Your task to perform on an android device: Open eBay Image 0: 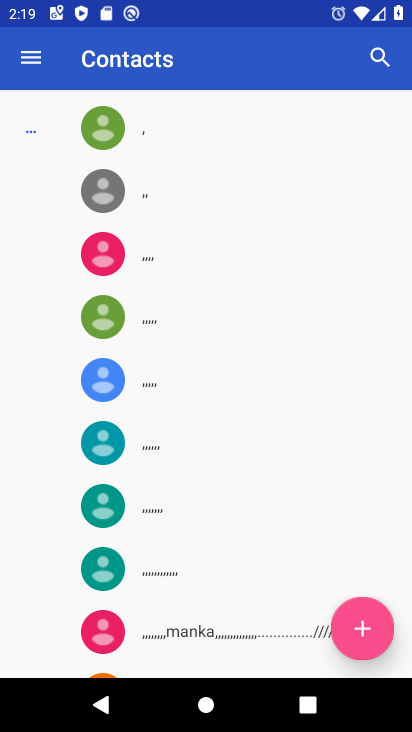
Step 0: press home button
Your task to perform on an android device: Open eBay Image 1: 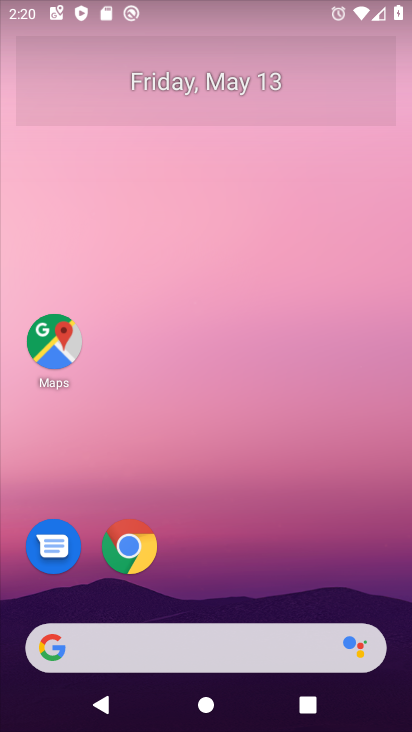
Step 1: click (122, 546)
Your task to perform on an android device: Open eBay Image 2: 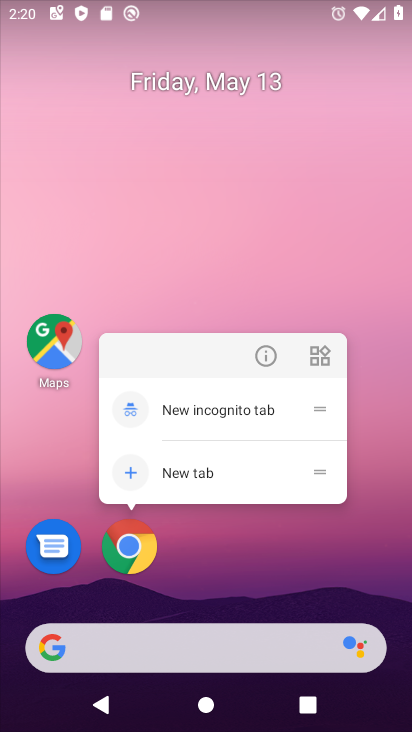
Step 2: click (128, 546)
Your task to perform on an android device: Open eBay Image 3: 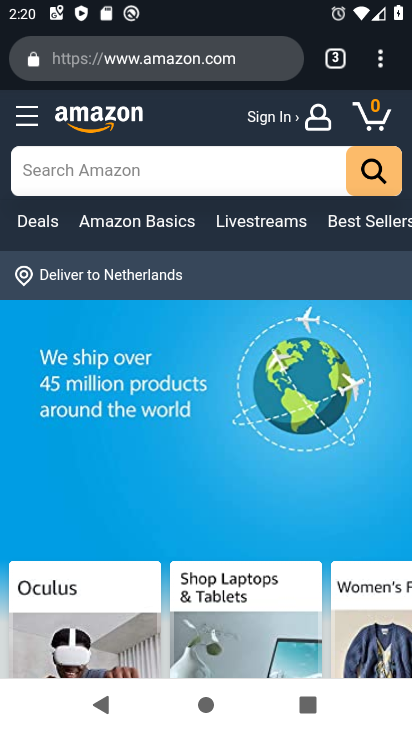
Step 3: click (262, 52)
Your task to perform on an android device: Open eBay Image 4: 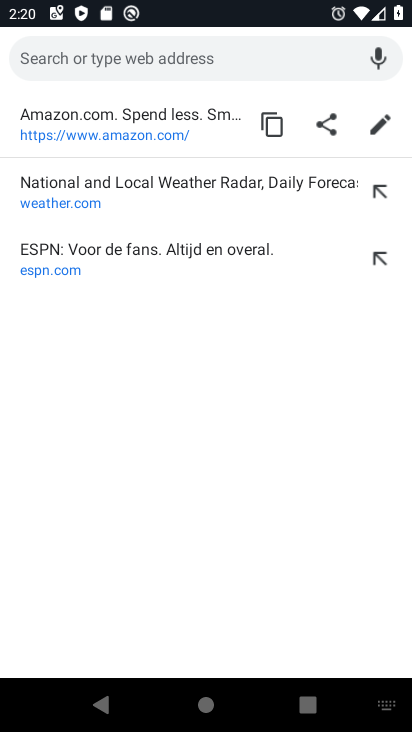
Step 4: type "ebay"
Your task to perform on an android device: Open eBay Image 5: 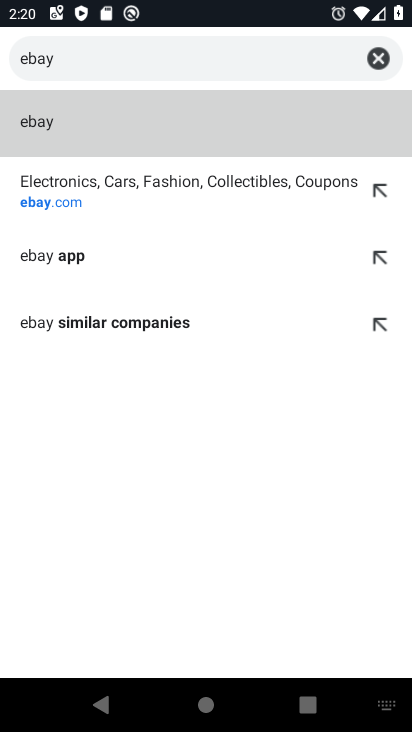
Step 5: click (65, 204)
Your task to perform on an android device: Open eBay Image 6: 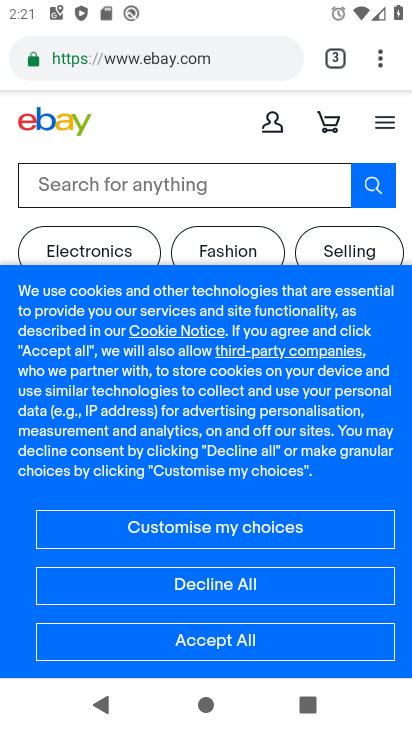
Step 6: task complete